Your task to perform on an android device: What is the recent news? Image 0: 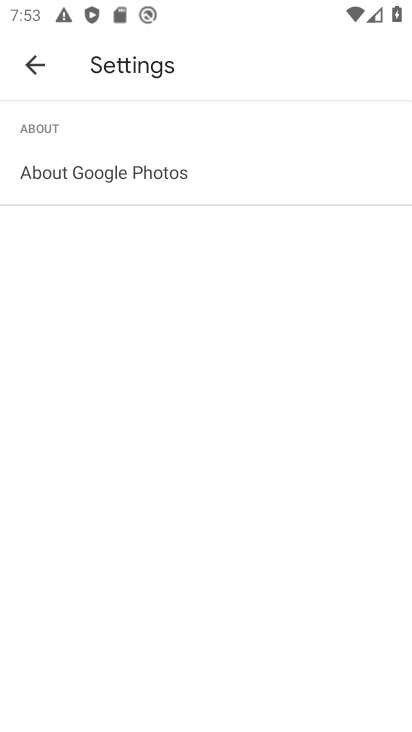
Step 0: press home button
Your task to perform on an android device: What is the recent news? Image 1: 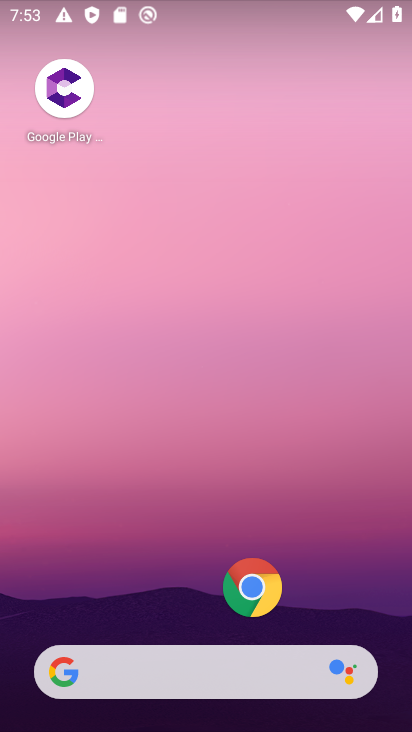
Step 1: click (202, 666)
Your task to perform on an android device: What is the recent news? Image 2: 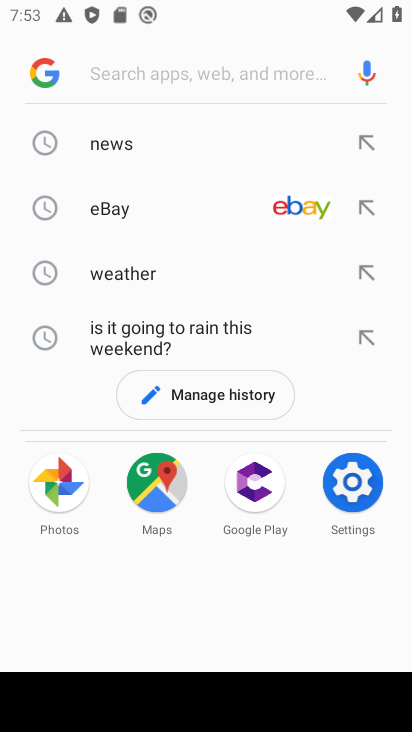
Step 2: type "recent news"
Your task to perform on an android device: What is the recent news? Image 3: 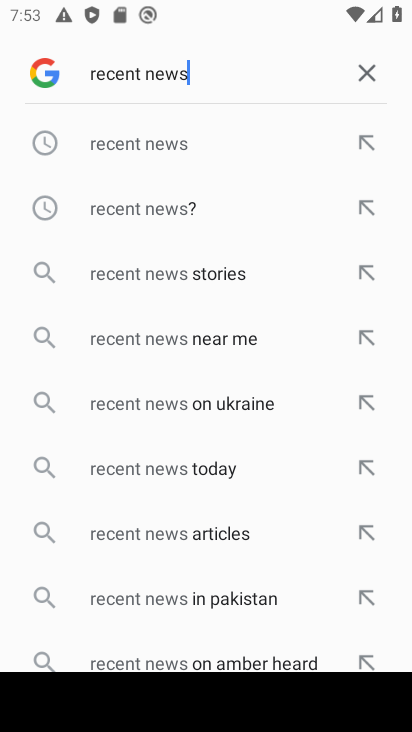
Step 3: click (180, 134)
Your task to perform on an android device: What is the recent news? Image 4: 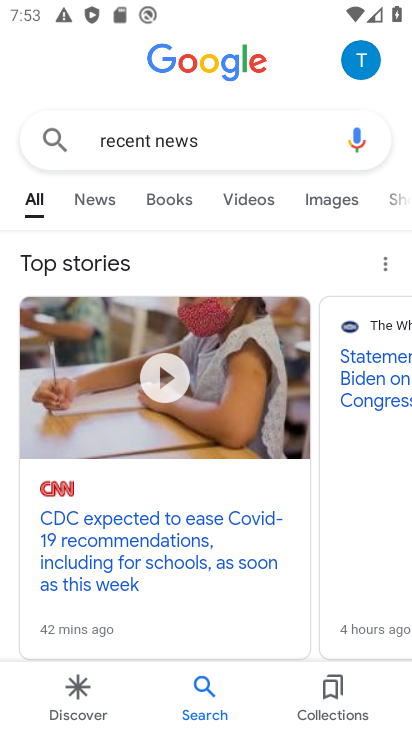
Step 4: click (103, 206)
Your task to perform on an android device: What is the recent news? Image 5: 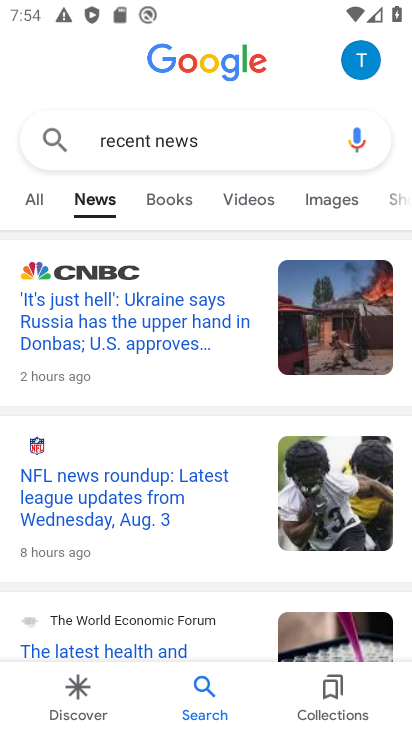
Step 5: task complete